Your task to perform on an android device: toggle translation in the chrome app Image 0: 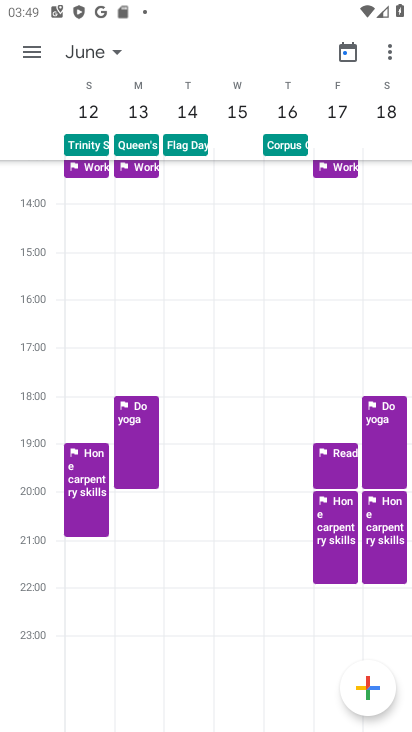
Step 0: press home button
Your task to perform on an android device: toggle translation in the chrome app Image 1: 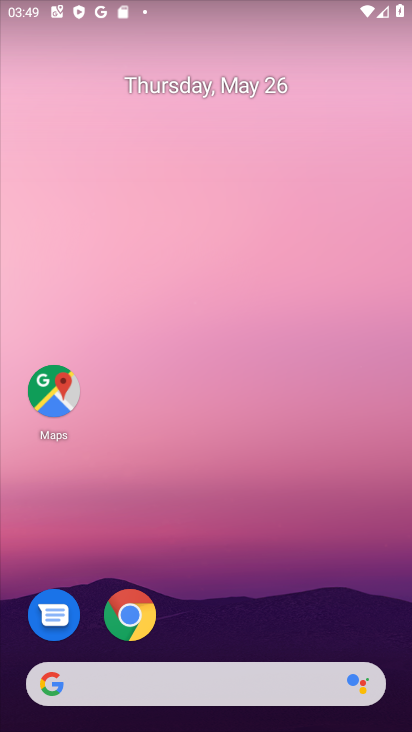
Step 1: drag from (223, 630) to (216, 229)
Your task to perform on an android device: toggle translation in the chrome app Image 2: 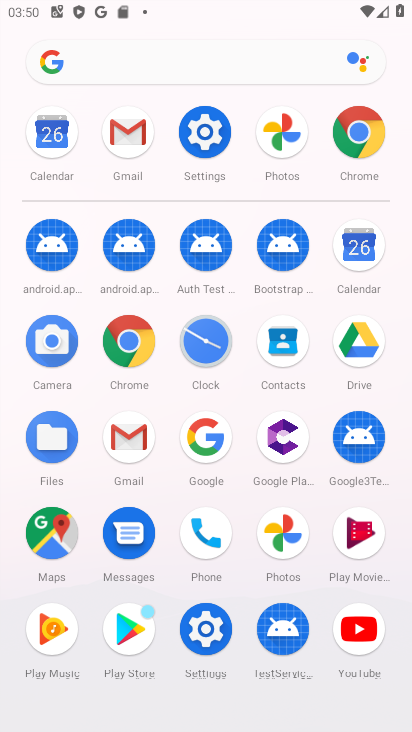
Step 2: click (361, 166)
Your task to perform on an android device: toggle translation in the chrome app Image 3: 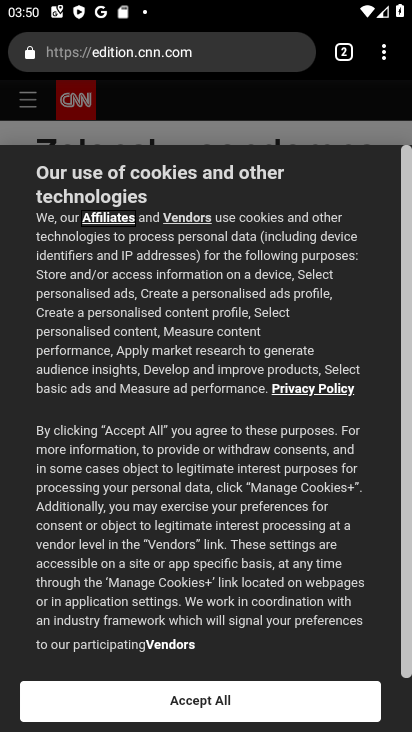
Step 3: click (383, 57)
Your task to perform on an android device: toggle translation in the chrome app Image 4: 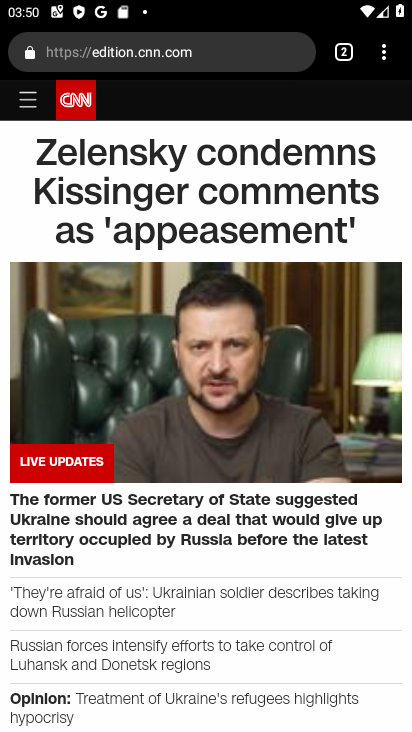
Step 4: click (386, 57)
Your task to perform on an android device: toggle translation in the chrome app Image 5: 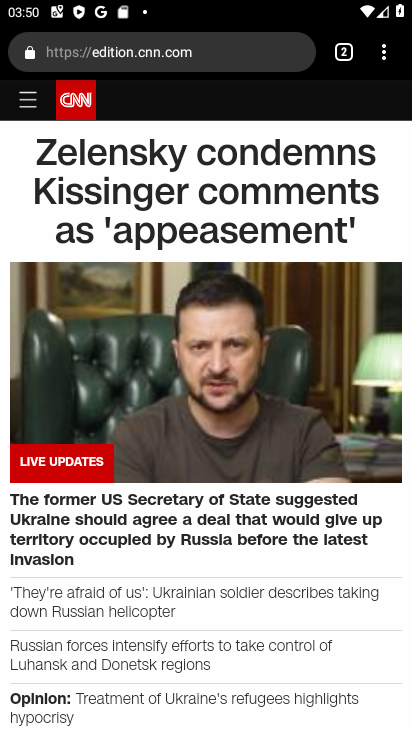
Step 5: click (383, 52)
Your task to perform on an android device: toggle translation in the chrome app Image 6: 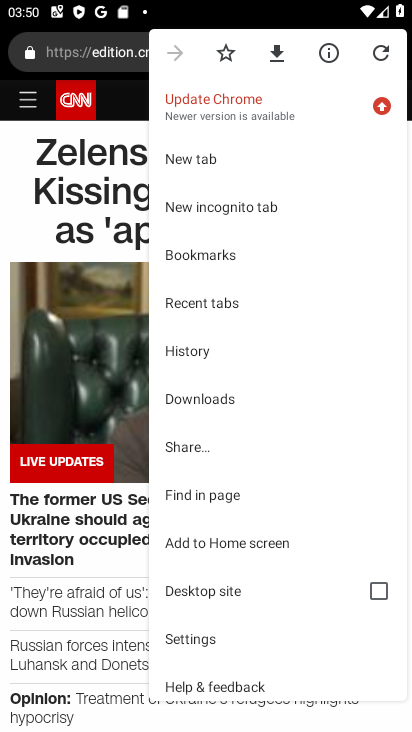
Step 6: click (216, 640)
Your task to perform on an android device: toggle translation in the chrome app Image 7: 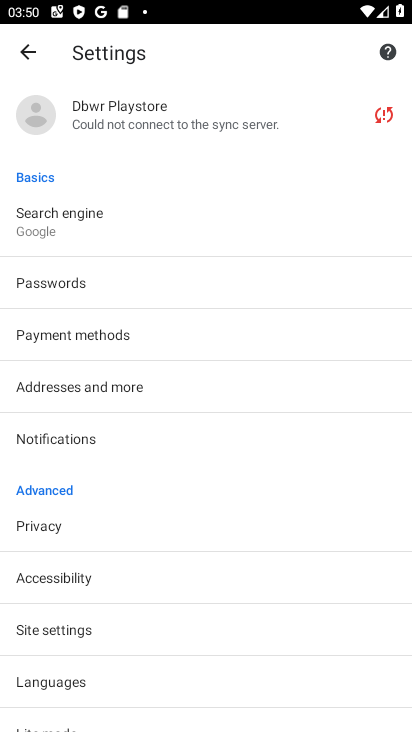
Step 7: click (76, 680)
Your task to perform on an android device: toggle translation in the chrome app Image 8: 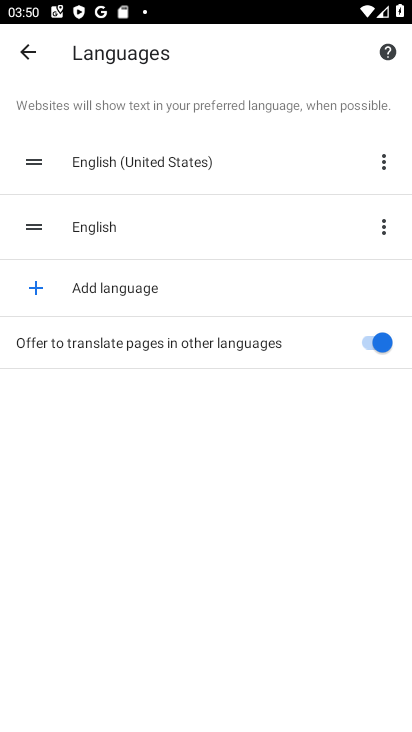
Step 8: click (368, 341)
Your task to perform on an android device: toggle translation in the chrome app Image 9: 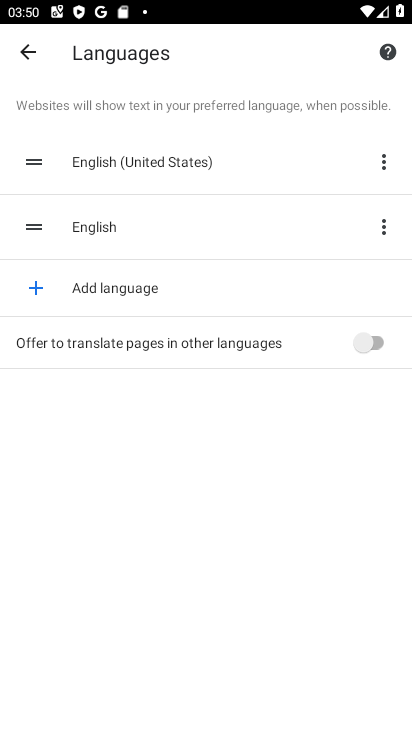
Step 9: task complete